Your task to perform on an android device: Open the phone app and click the voicemail tab. Image 0: 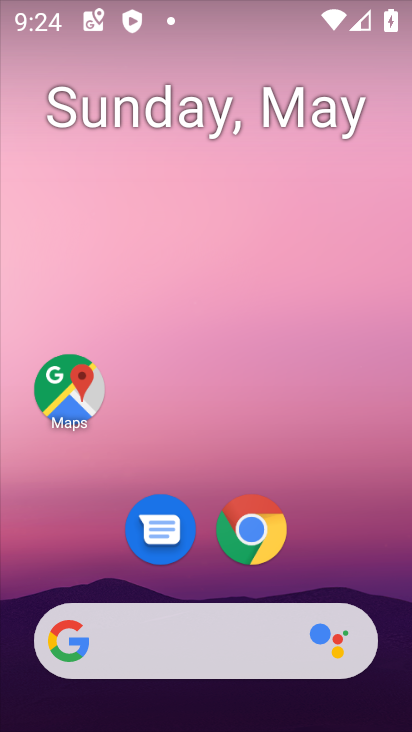
Step 0: drag from (367, 561) to (234, 76)
Your task to perform on an android device: Open the phone app and click the voicemail tab. Image 1: 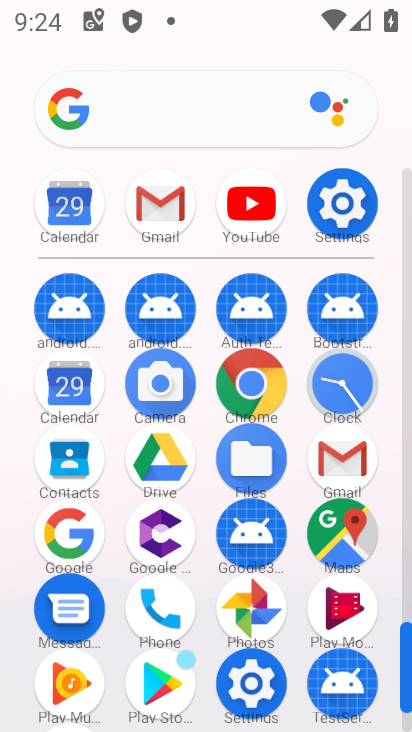
Step 1: click (149, 598)
Your task to perform on an android device: Open the phone app and click the voicemail tab. Image 2: 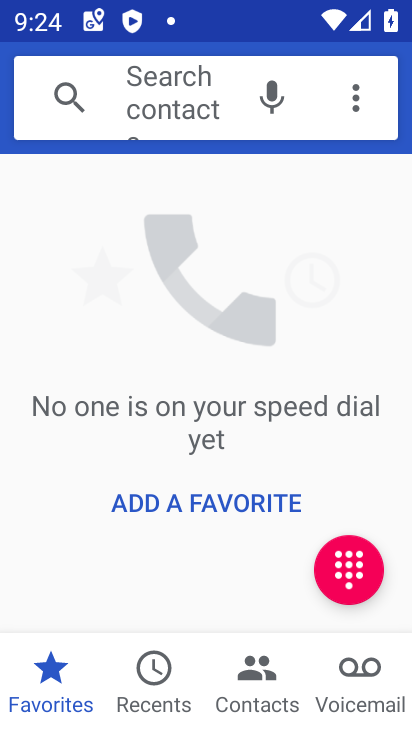
Step 2: click (358, 669)
Your task to perform on an android device: Open the phone app and click the voicemail tab. Image 3: 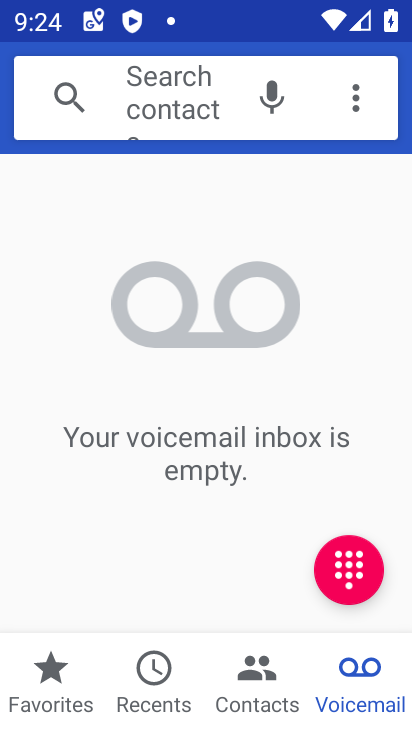
Step 3: task complete